Your task to perform on an android device: Check the news Image 0: 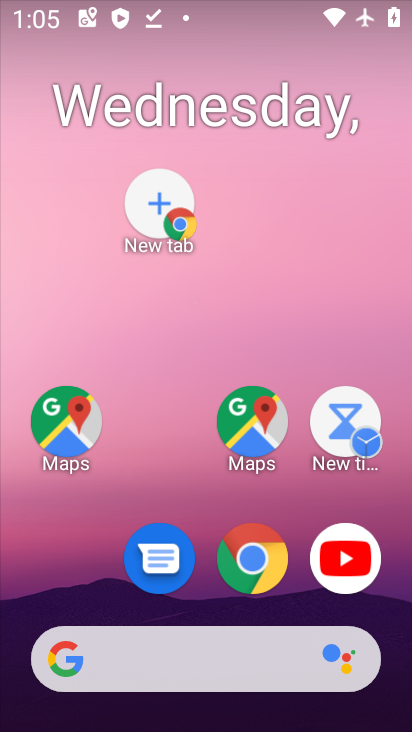
Step 0: drag from (67, 266) to (399, 306)
Your task to perform on an android device: Check the news Image 1: 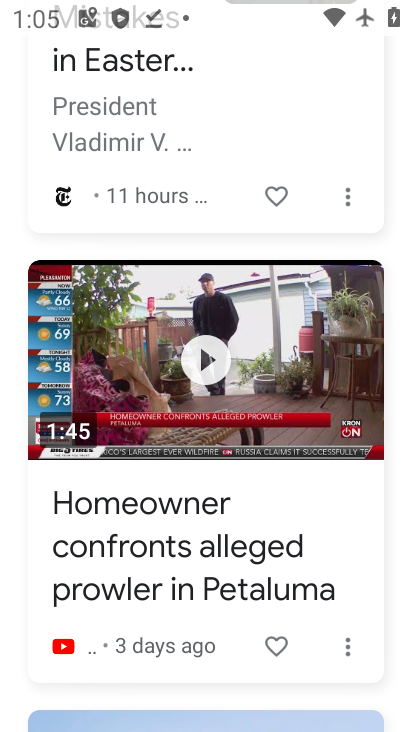
Step 1: task complete